Your task to perform on an android device: What is the recent news? Image 0: 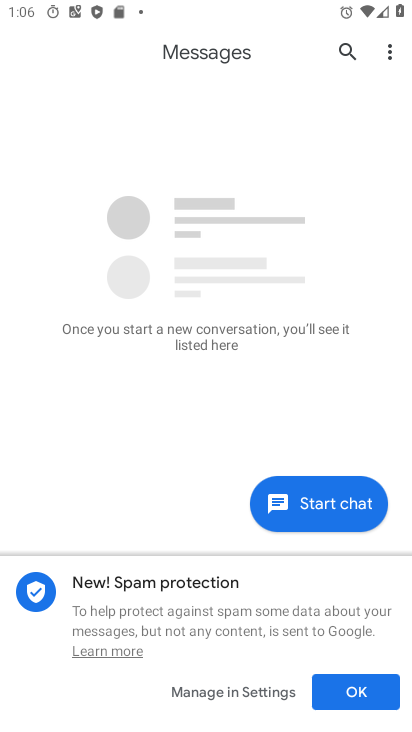
Step 0: press home button
Your task to perform on an android device: What is the recent news? Image 1: 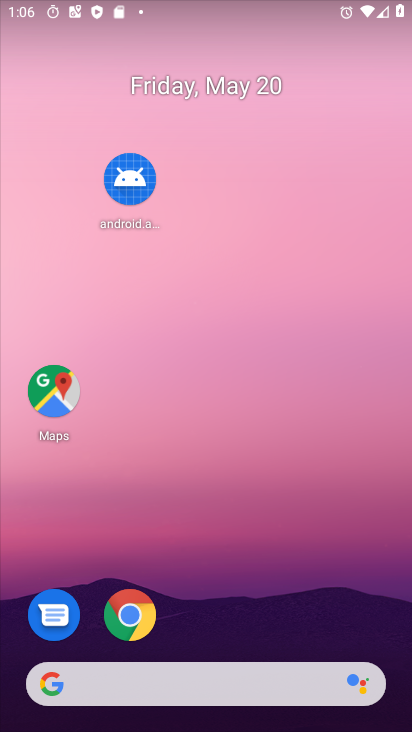
Step 1: task complete